Your task to perform on an android device: Open Google Chrome and open the bookmarks view Image 0: 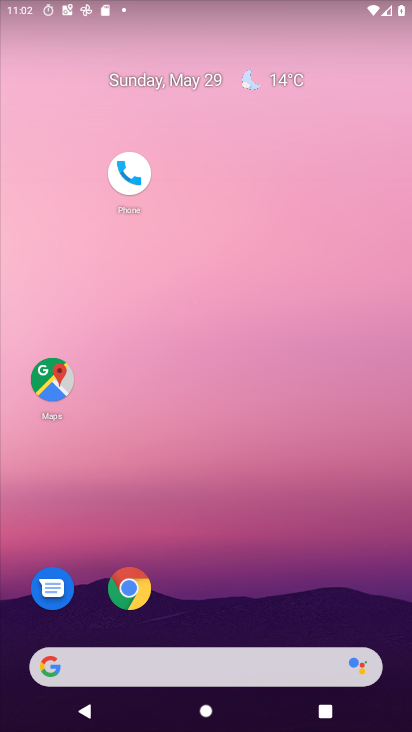
Step 0: drag from (218, 536) to (141, 137)
Your task to perform on an android device: Open Google Chrome and open the bookmarks view Image 1: 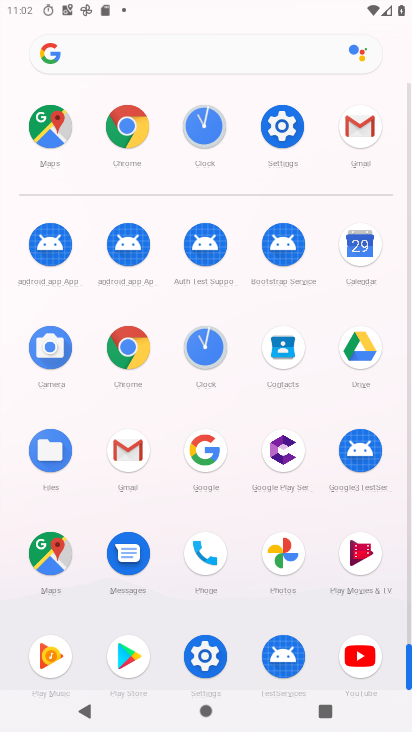
Step 1: click (129, 355)
Your task to perform on an android device: Open Google Chrome and open the bookmarks view Image 2: 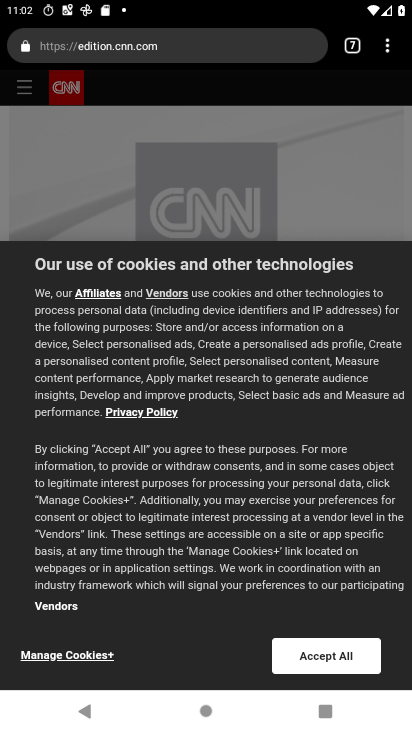
Step 2: drag from (383, 75) to (358, 171)
Your task to perform on an android device: Open Google Chrome and open the bookmarks view Image 3: 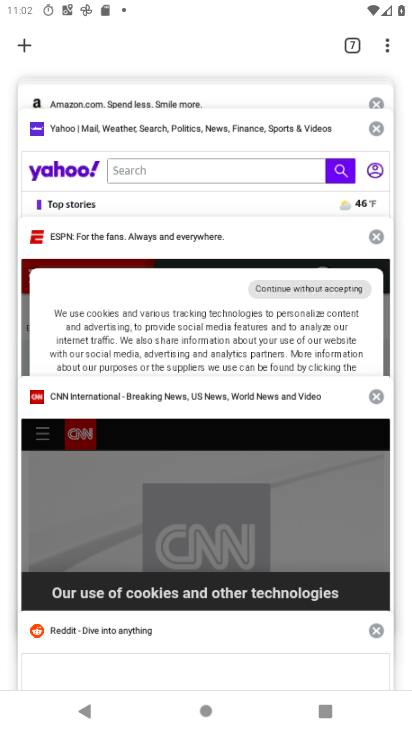
Step 3: drag from (389, 53) to (378, 95)
Your task to perform on an android device: Open Google Chrome and open the bookmarks view Image 4: 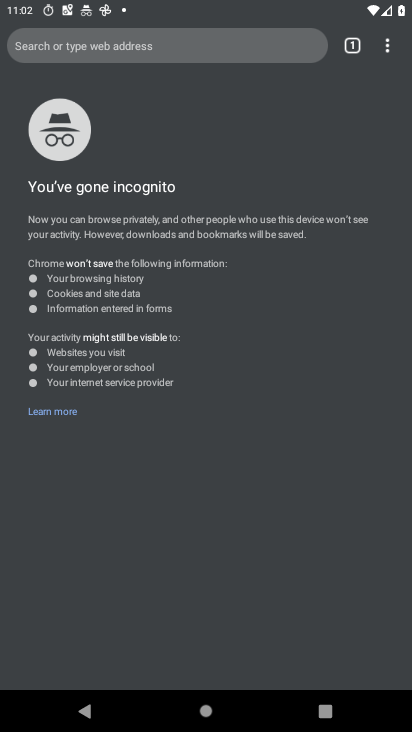
Step 4: click (393, 43)
Your task to perform on an android device: Open Google Chrome and open the bookmarks view Image 5: 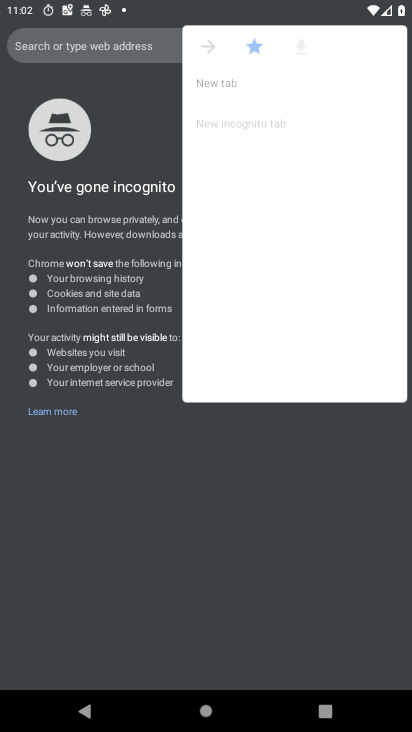
Step 5: drag from (381, 50) to (220, 173)
Your task to perform on an android device: Open Google Chrome and open the bookmarks view Image 6: 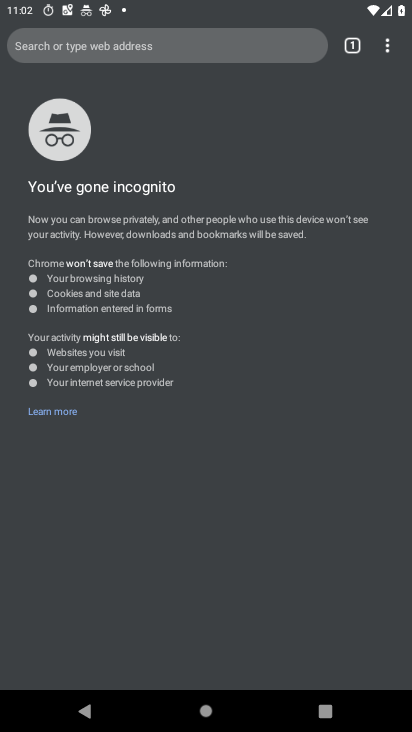
Step 6: click (218, 167)
Your task to perform on an android device: Open Google Chrome and open the bookmarks view Image 7: 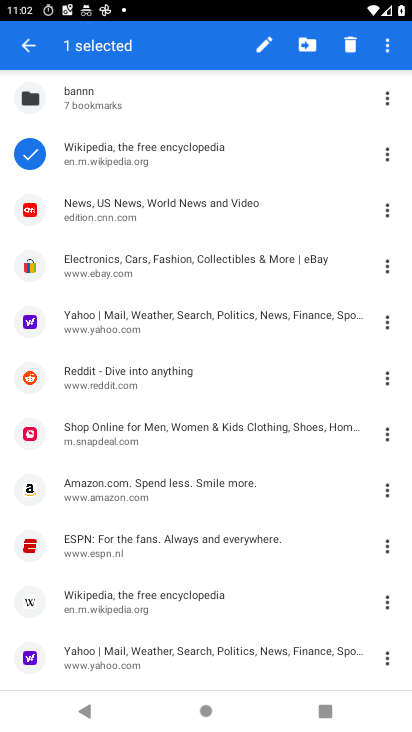
Step 7: task complete